Your task to perform on an android device: Open display settings Image 0: 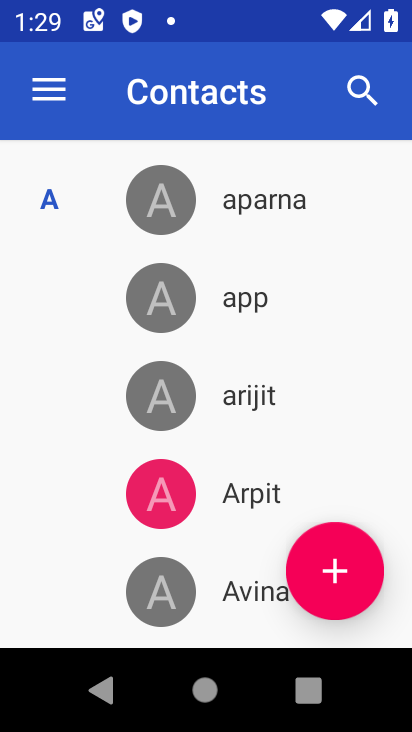
Step 0: press home button
Your task to perform on an android device: Open display settings Image 1: 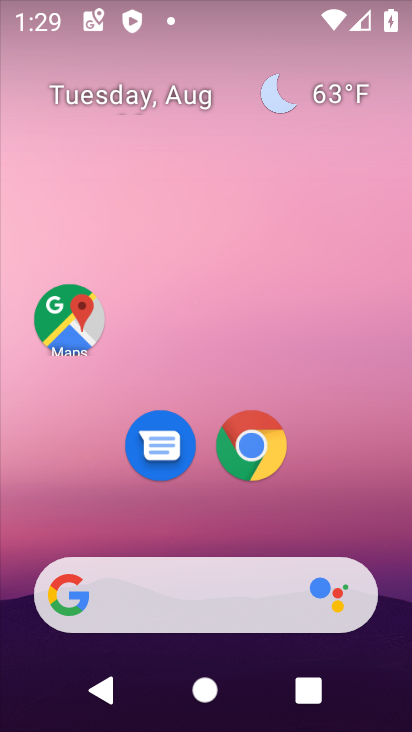
Step 1: drag from (210, 516) to (253, 0)
Your task to perform on an android device: Open display settings Image 2: 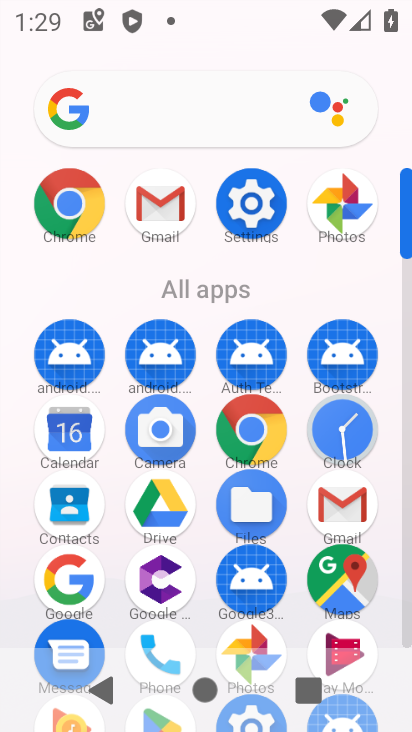
Step 2: click (249, 197)
Your task to perform on an android device: Open display settings Image 3: 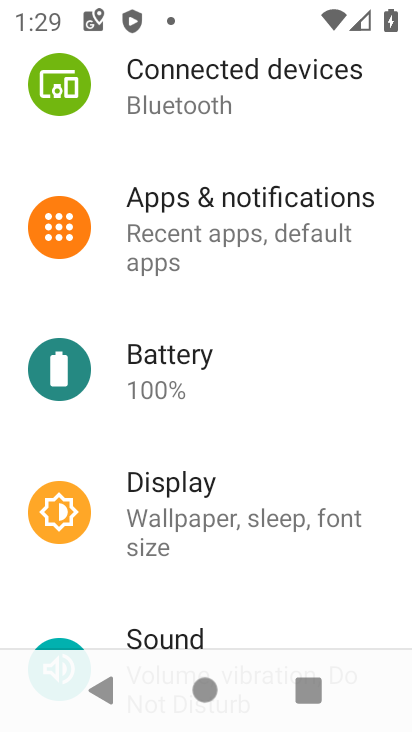
Step 3: click (226, 487)
Your task to perform on an android device: Open display settings Image 4: 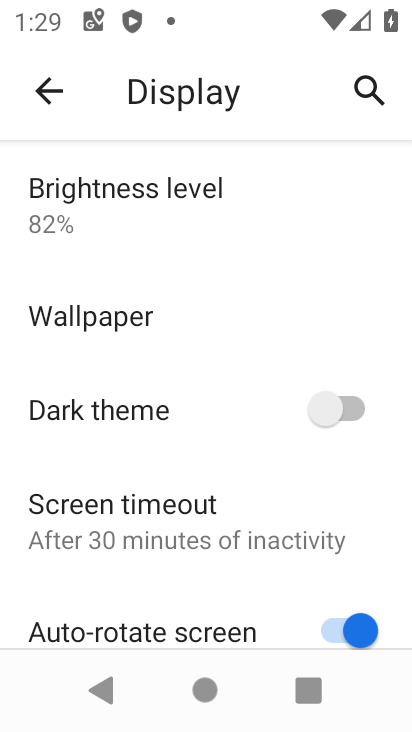
Step 4: drag from (210, 587) to (270, 103)
Your task to perform on an android device: Open display settings Image 5: 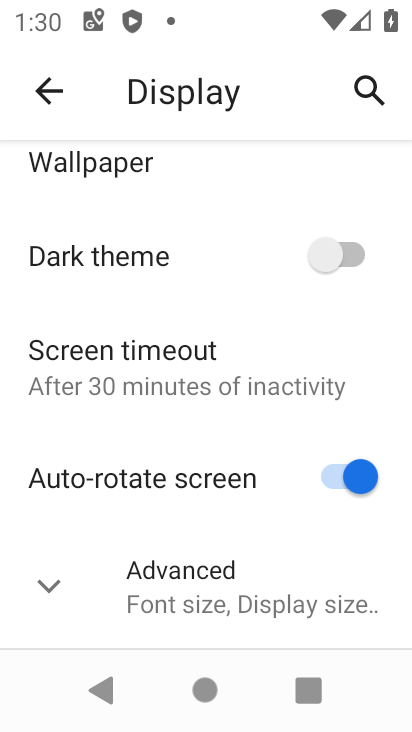
Step 5: click (50, 572)
Your task to perform on an android device: Open display settings Image 6: 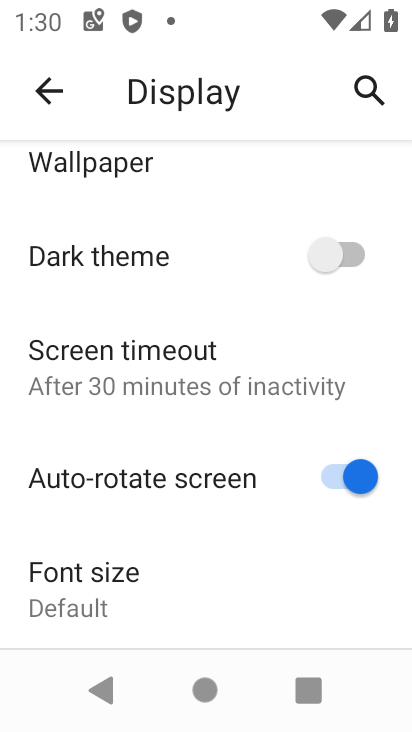
Step 6: task complete